Your task to perform on an android device: Search for sushi restaurants on Maps Image 0: 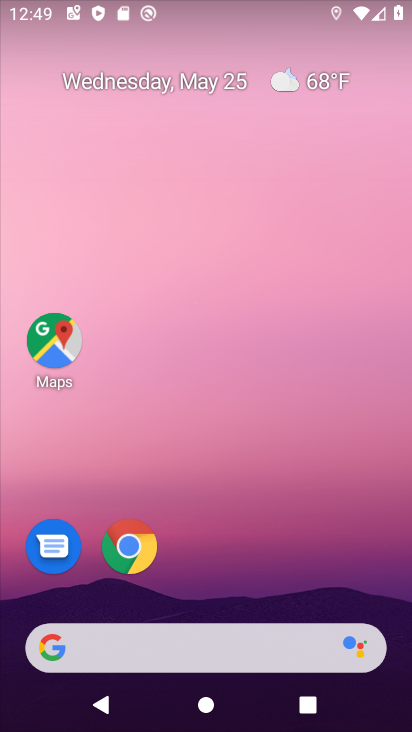
Step 0: click (71, 351)
Your task to perform on an android device: Search for sushi restaurants on Maps Image 1: 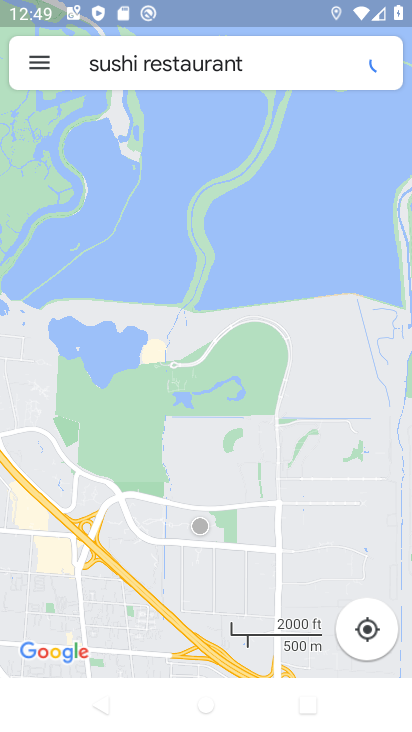
Step 1: task complete